Your task to perform on an android device: manage bookmarks in the chrome app Image 0: 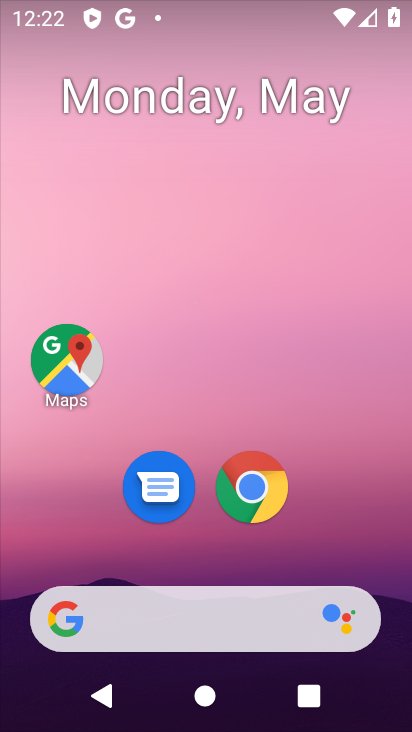
Step 0: click (251, 486)
Your task to perform on an android device: manage bookmarks in the chrome app Image 1: 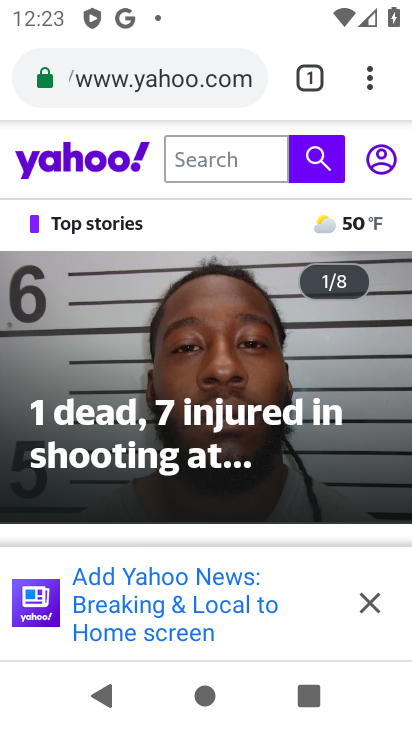
Step 1: click (370, 79)
Your task to perform on an android device: manage bookmarks in the chrome app Image 2: 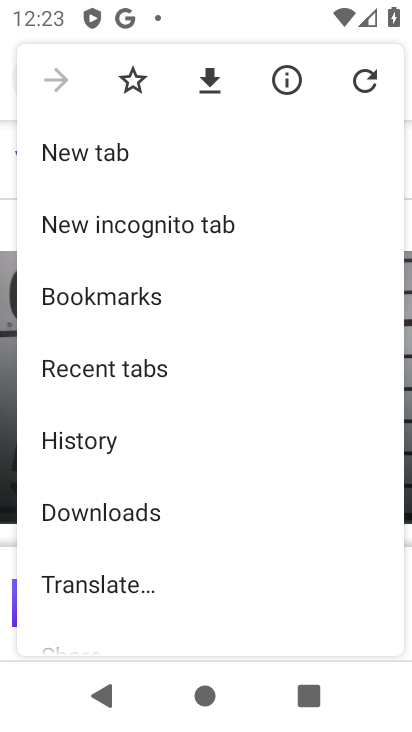
Step 2: drag from (160, 468) to (176, 373)
Your task to perform on an android device: manage bookmarks in the chrome app Image 3: 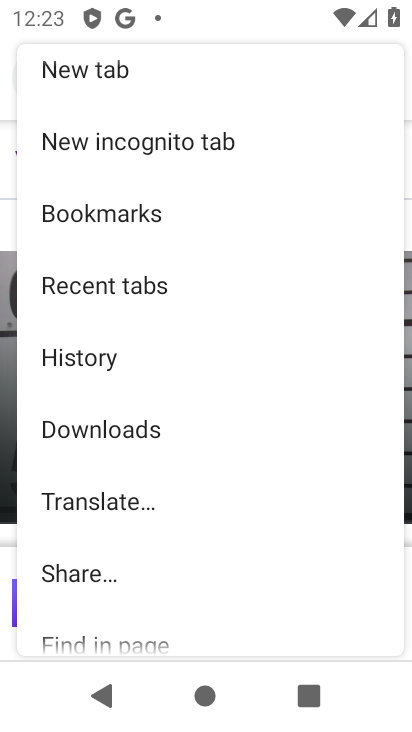
Step 3: click (156, 229)
Your task to perform on an android device: manage bookmarks in the chrome app Image 4: 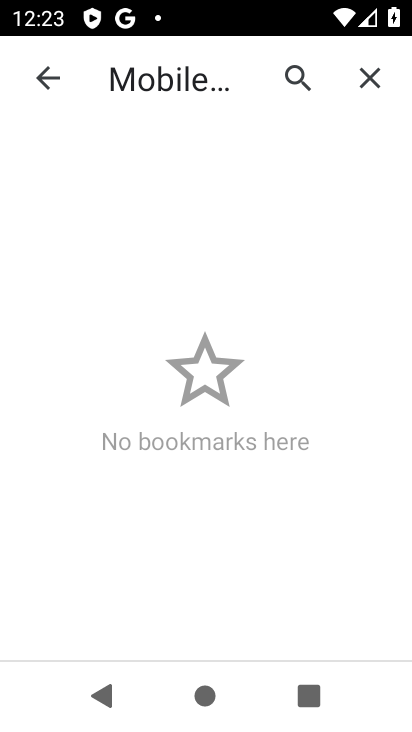
Step 4: task complete